Your task to perform on an android device: check the backup settings in the google photos Image 0: 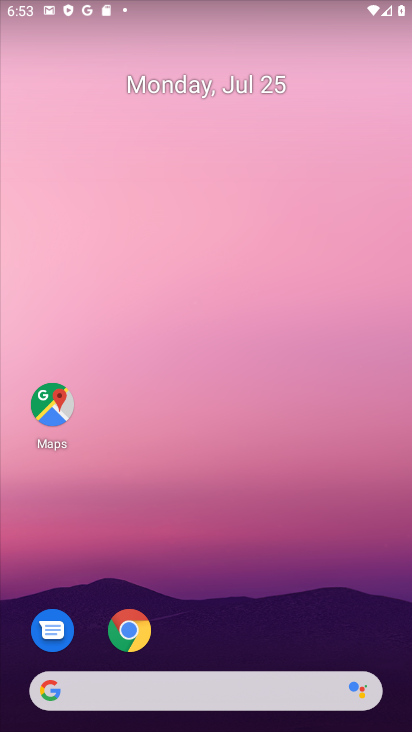
Step 0: drag from (290, 700) to (235, 333)
Your task to perform on an android device: check the backup settings in the google photos Image 1: 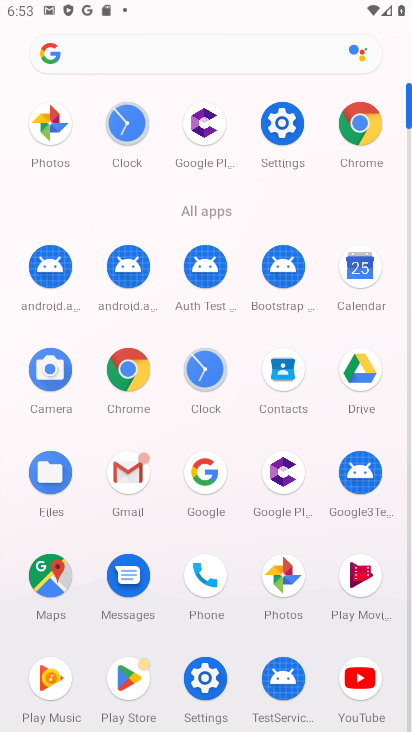
Step 1: click (290, 589)
Your task to perform on an android device: check the backup settings in the google photos Image 2: 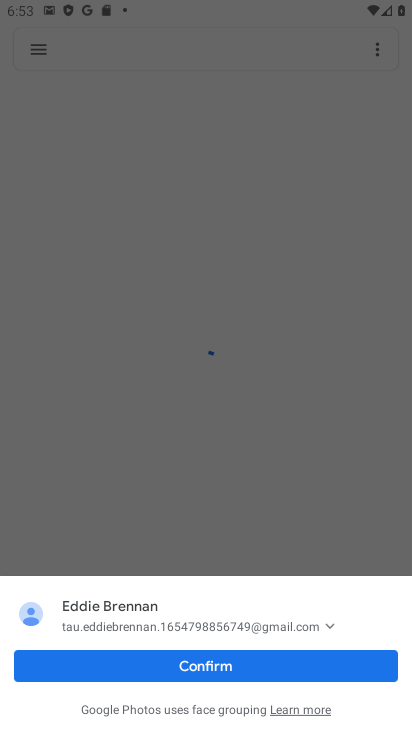
Step 2: click (38, 56)
Your task to perform on an android device: check the backup settings in the google photos Image 3: 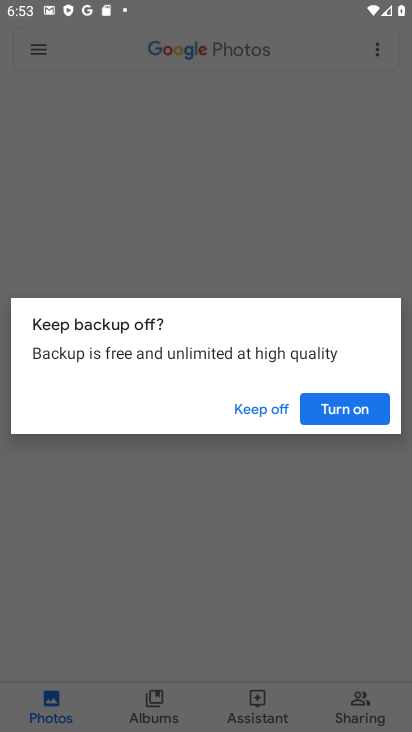
Step 3: click (314, 410)
Your task to perform on an android device: check the backup settings in the google photos Image 4: 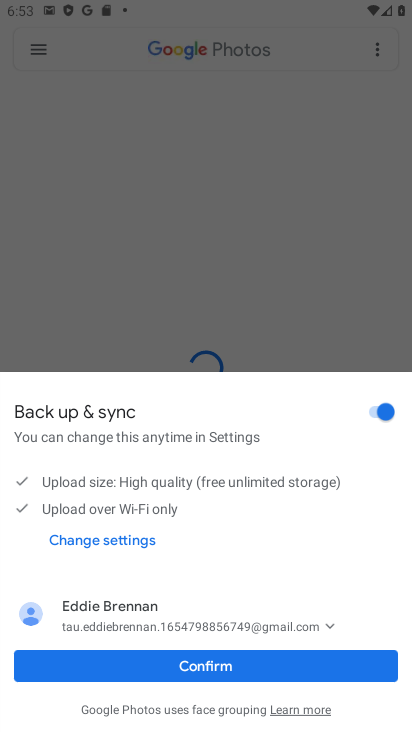
Step 4: click (216, 672)
Your task to perform on an android device: check the backup settings in the google photos Image 5: 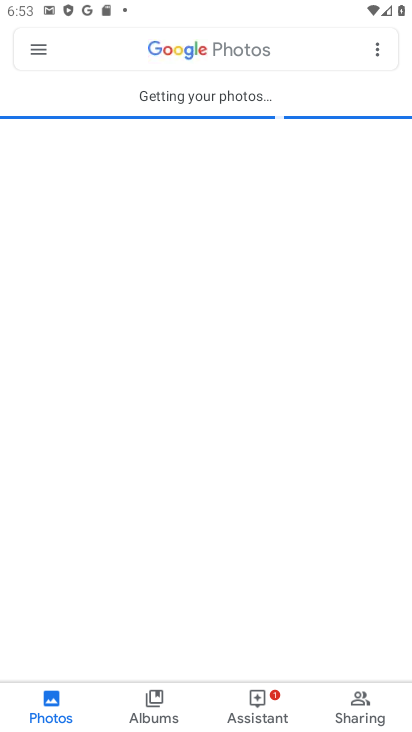
Step 5: click (32, 50)
Your task to perform on an android device: check the backup settings in the google photos Image 6: 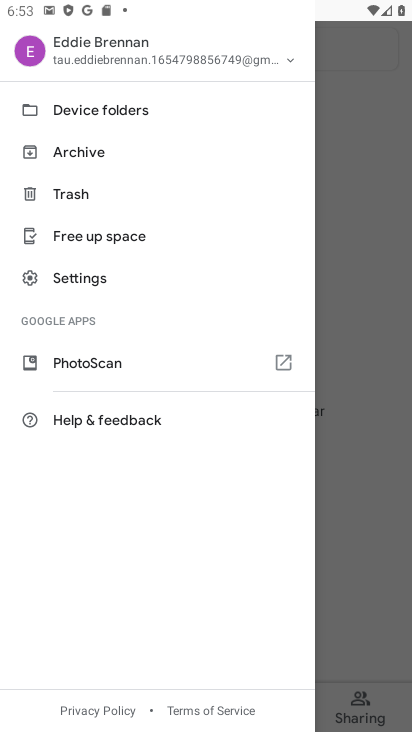
Step 6: click (66, 281)
Your task to perform on an android device: check the backup settings in the google photos Image 7: 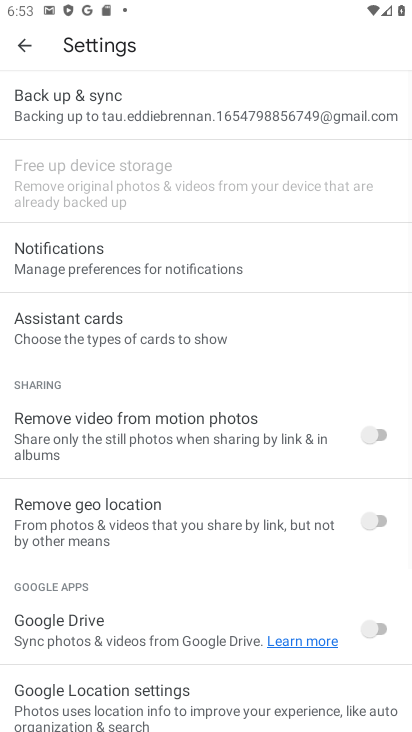
Step 7: click (135, 113)
Your task to perform on an android device: check the backup settings in the google photos Image 8: 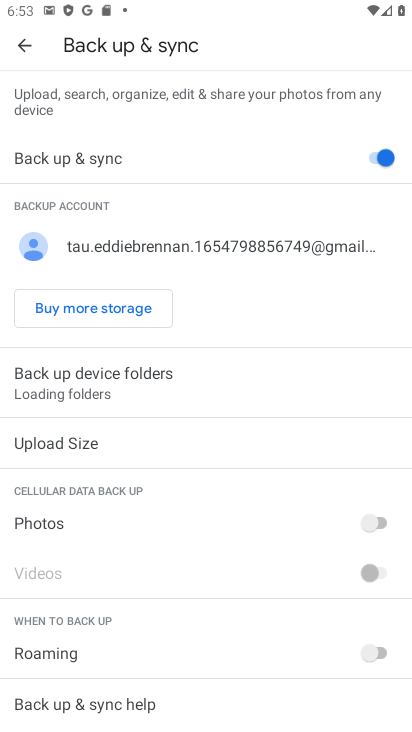
Step 8: task complete